Your task to perform on an android device: See recent photos Image 0: 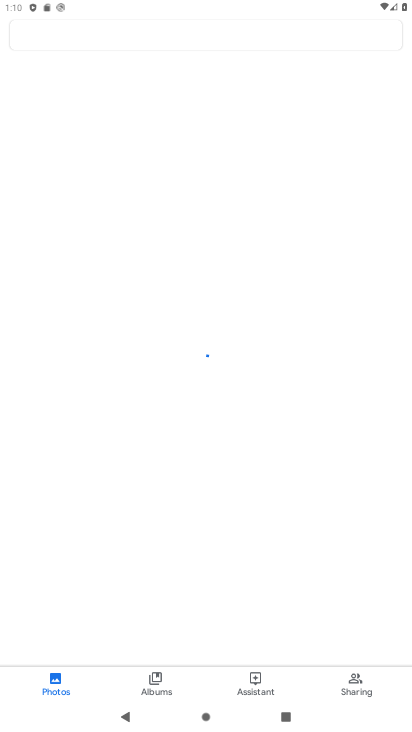
Step 0: drag from (198, 612) to (239, 357)
Your task to perform on an android device: See recent photos Image 1: 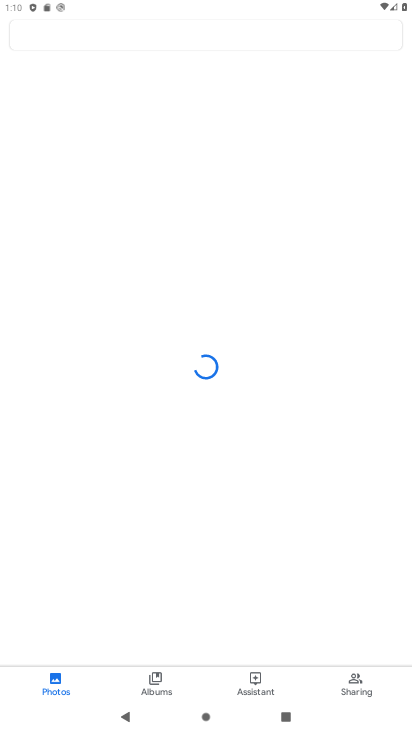
Step 1: click (262, 347)
Your task to perform on an android device: See recent photos Image 2: 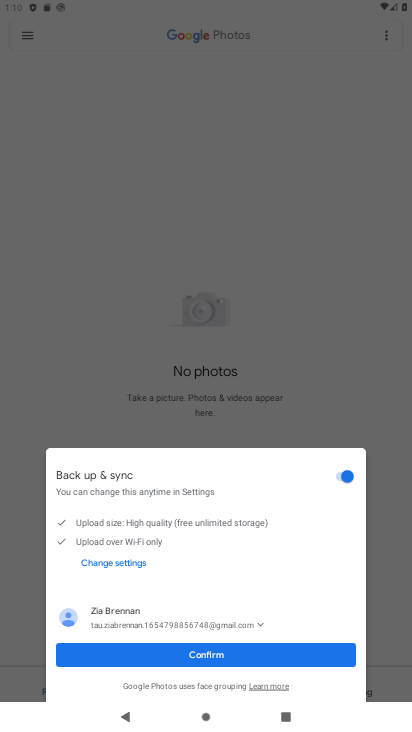
Step 2: drag from (189, 581) to (220, 360)
Your task to perform on an android device: See recent photos Image 3: 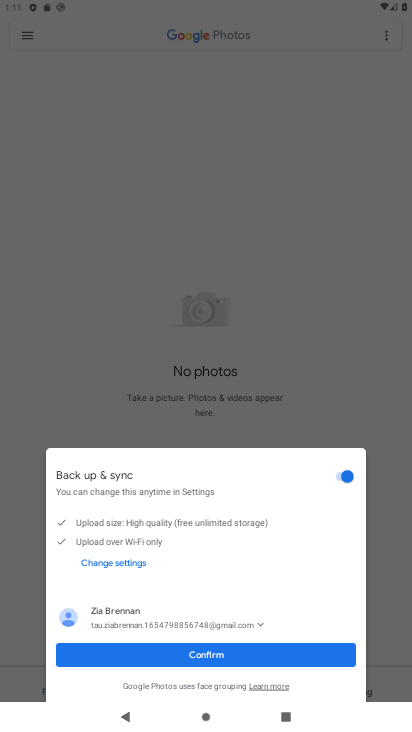
Step 3: press home button
Your task to perform on an android device: See recent photos Image 4: 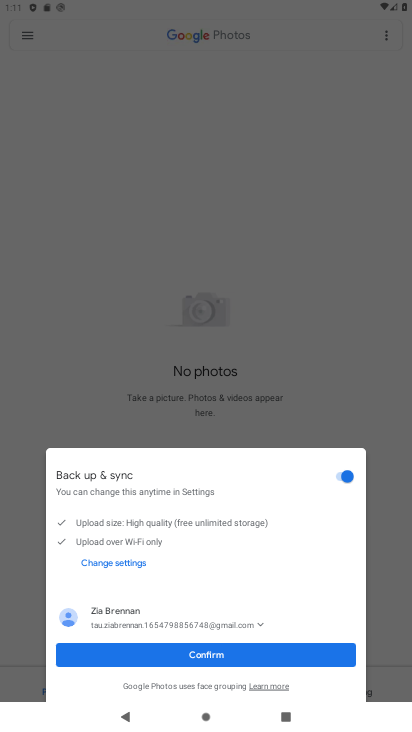
Step 4: press home button
Your task to perform on an android device: See recent photos Image 5: 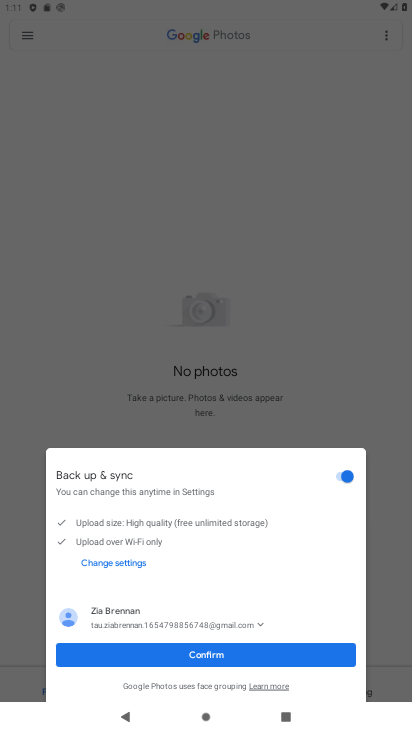
Step 5: click (281, 192)
Your task to perform on an android device: See recent photos Image 6: 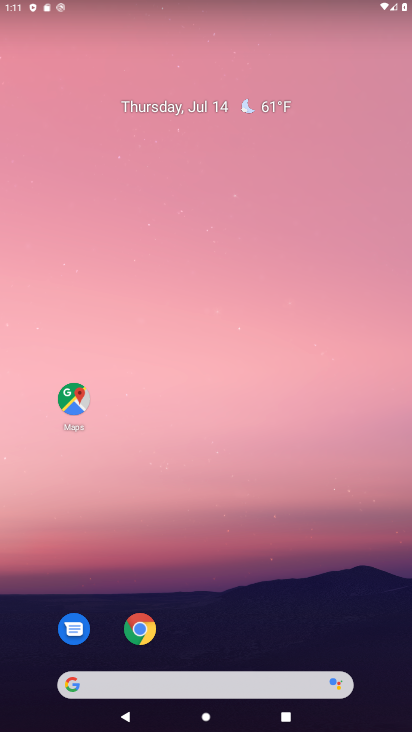
Step 6: drag from (193, 639) to (224, 119)
Your task to perform on an android device: See recent photos Image 7: 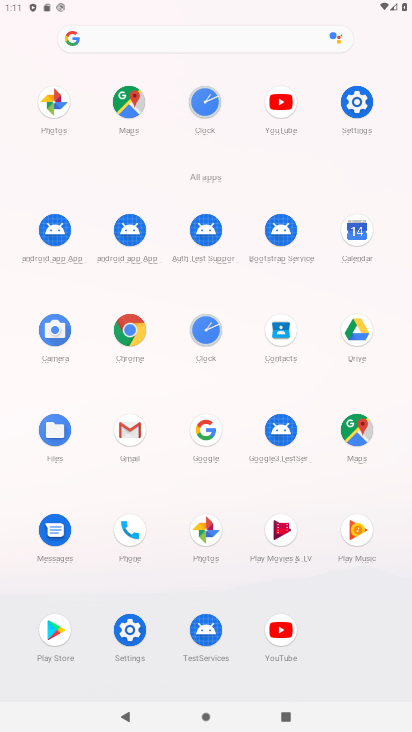
Step 7: drag from (228, 567) to (211, 431)
Your task to perform on an android device: See recent photos Image 8: 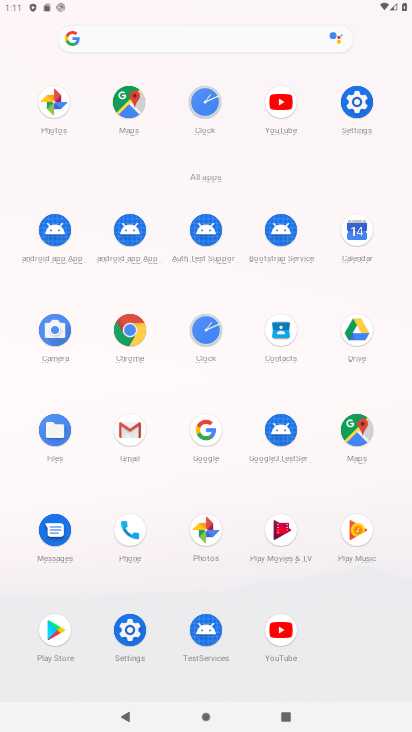
Step 8: click (207, 532)
Your task to perform on an android device: See recent photos Image 9: 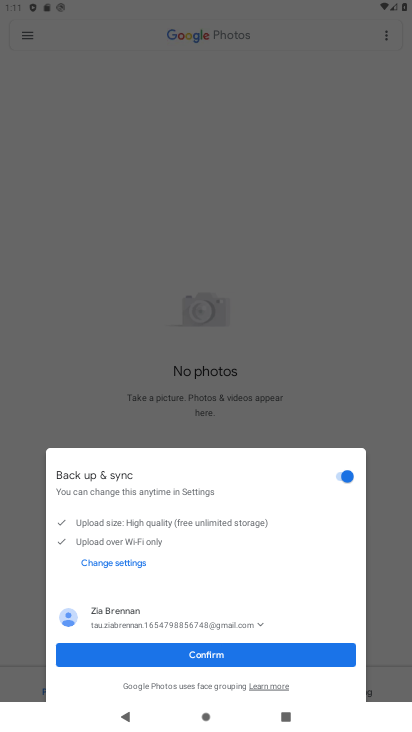
Step 9: click (252, 272)
Your task to perform on an android device: See recent photos Image 10: 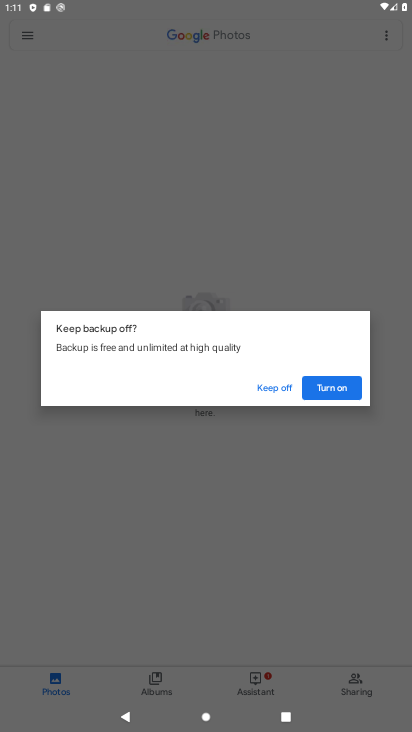
Step 10: press home button
Your task to perform on an android device: See recent photos Image 11: 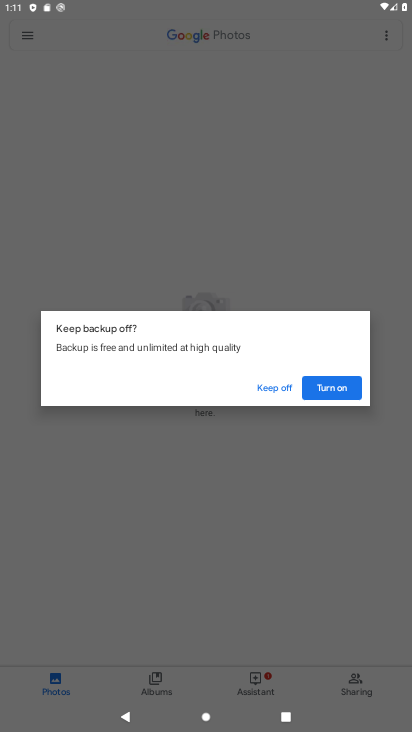
Step 11: press home button
Your task to perform on an android device: See recent photos Image 12: 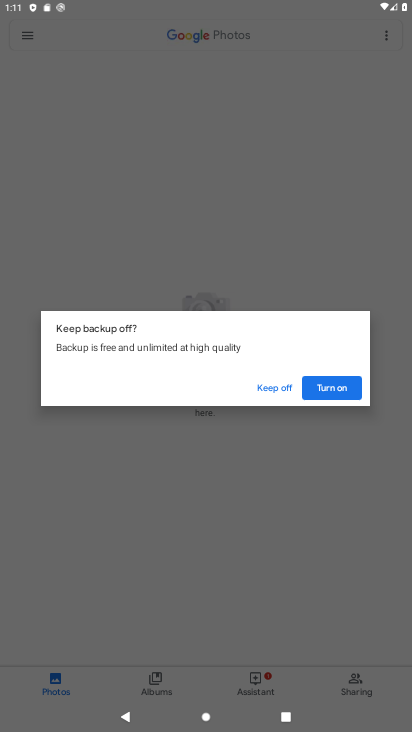
Step 12: click (248, 344)
Your task to perform on an android device: See recent photos Image 13: 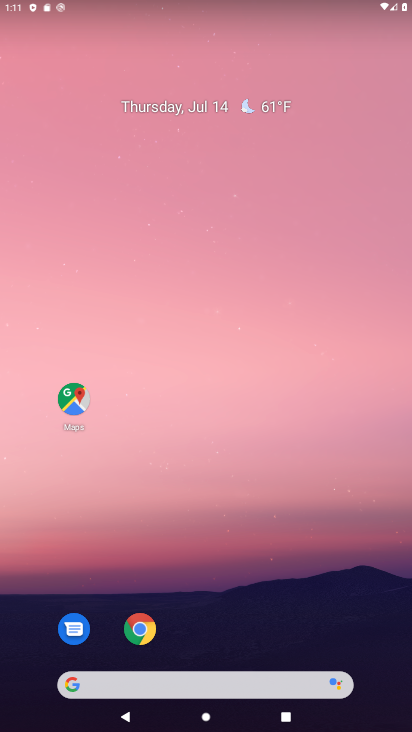
Step 13: drag from (211, 591) to (237, 178)
Your task to perform on an android device: See recent photos Image 14: 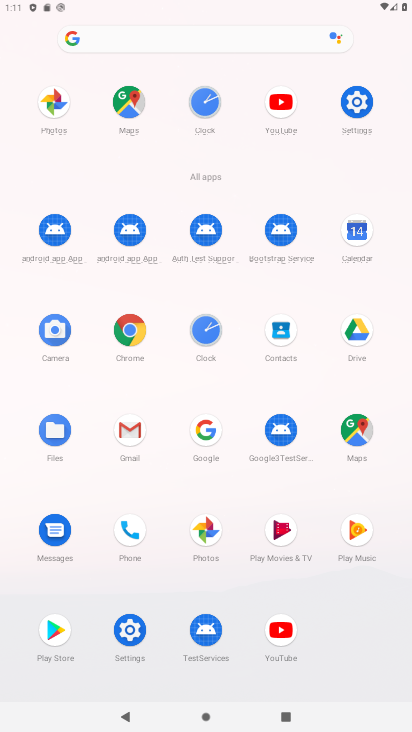
Step 14: drag from (171, 562) to (197, 341)
Your task to perform on an android device: See recent photos Image 15: 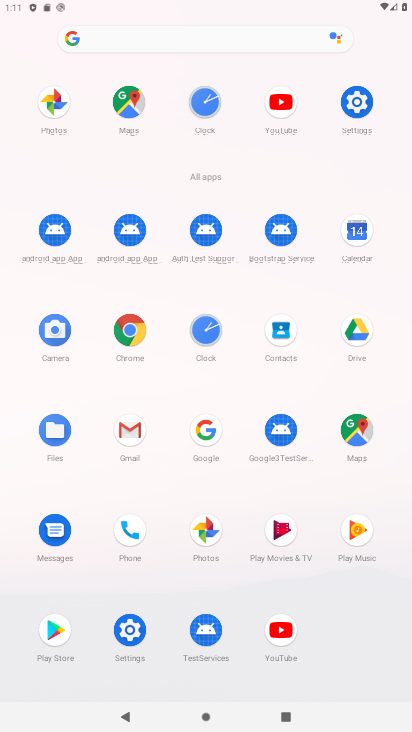
Step 15: drag from (168, 595) to (215, 318)
Your task to perform on an android device: See recent photos Image 16: 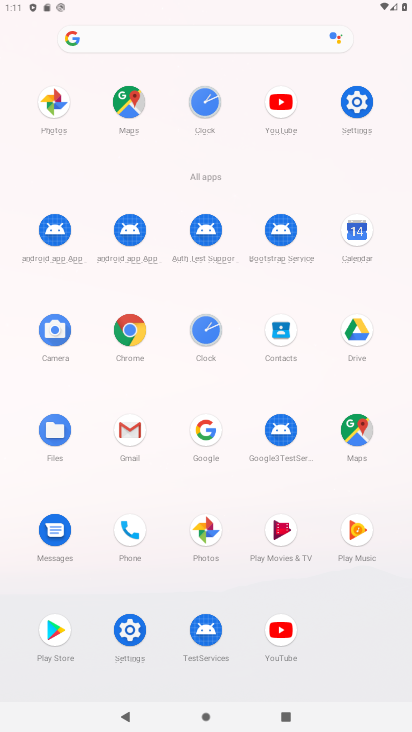
Step 16: drag from (238, 591) to (238, 244)
Your task to perform on an android device: See recent photos Image 17: 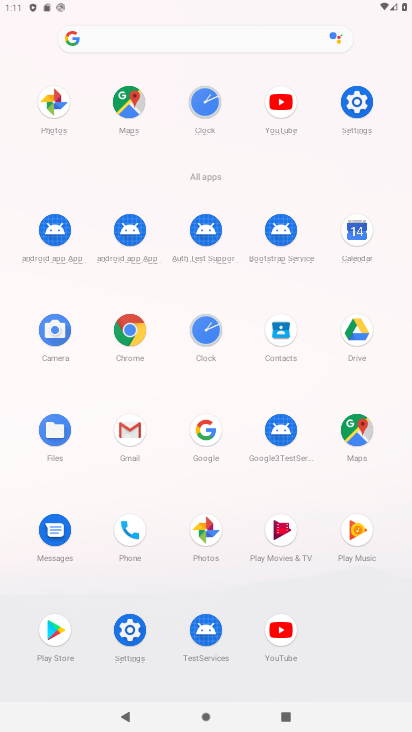
Step 17: drag from (236, 552) to (242, 345)
Your task to perform on an android device: See recent photos Image 18: 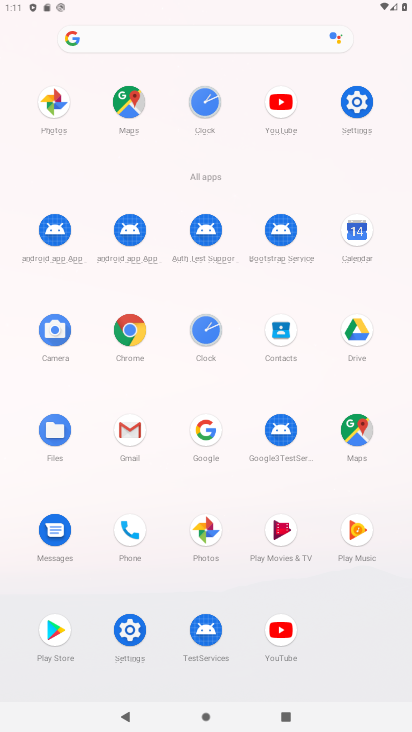
Step 18: drag from (247, 586) to (247, 246)
Your task to perform on an android device: See recent photos Image 19: 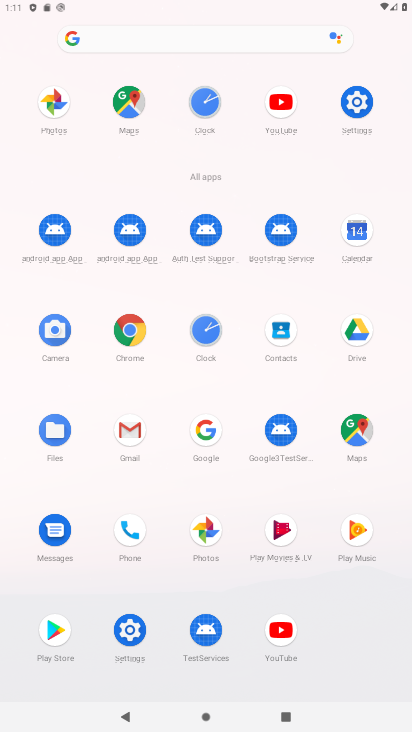
Step 19: drag from (240, 600) to (234, 148)
Your task to perform on an android device: See recent photos Image 20: 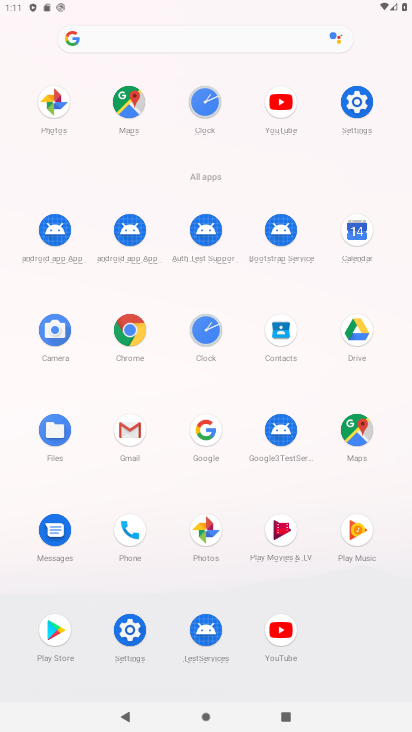
Step 20: drag from (163, 628) to (146, 252)
Your task to perform on an android device: See recent photos Image 21: 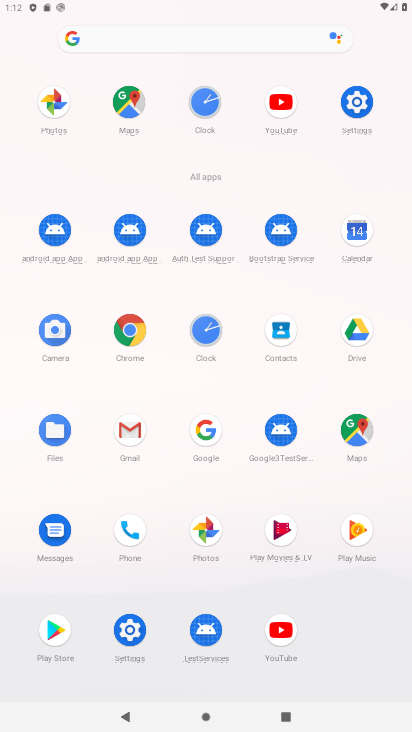
Step 21: click (199, 530)
Your task to perform on an android device: See recent photos Image 22: 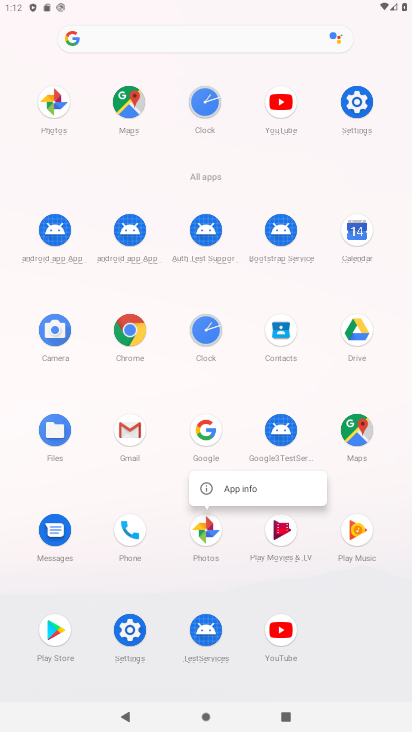
Step 22: click (234, 482)
Your task to perform on an android device: See recent photos Image 23: 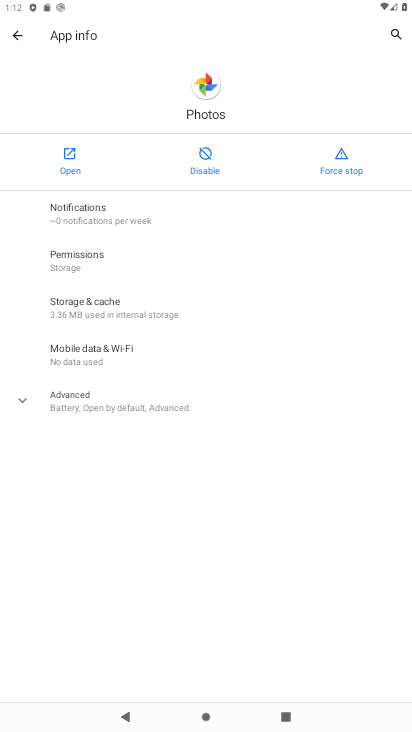
Step 23: click (69, 151)
Your task to perform on an android device: See recent photos Image 24: 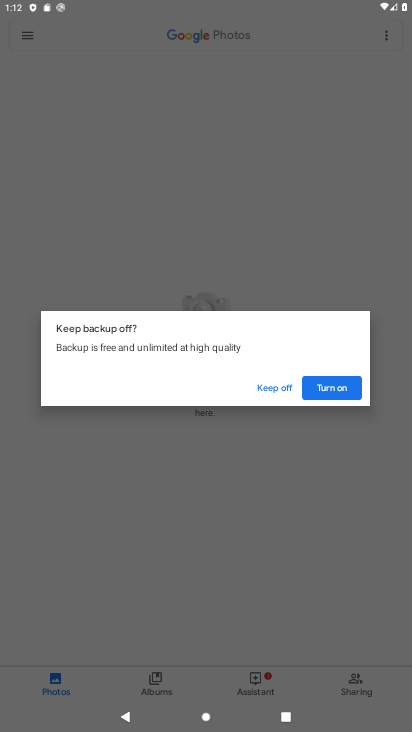
Step 24: click (331, 385)
Your task to perform on an android device: See recent photos Image 25: 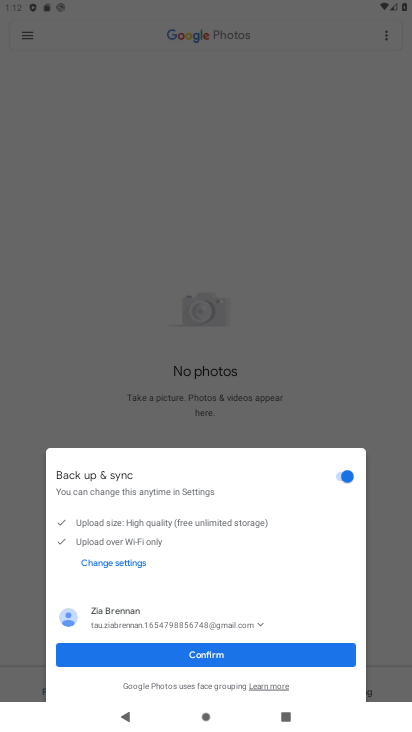
Step 25: click (176, 648)
Your task to perform on an android device: See recent photos Image 26: 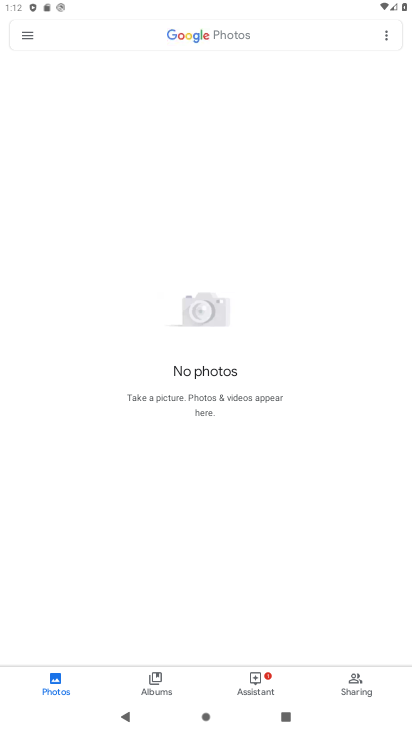
Step 26: drag from (202, 591) to (203, 425)
Your task to perform on an android device: See recent photos Image 27: 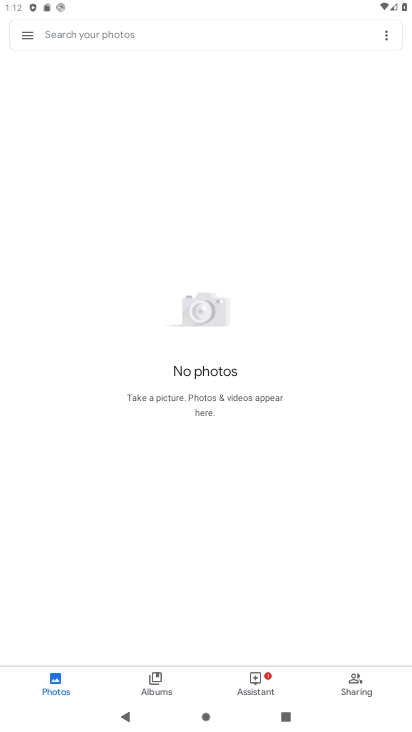
Step 27: drag from (182, 561) to (230, 265)
Your task to perform on an android device: See recent photos Image 28: 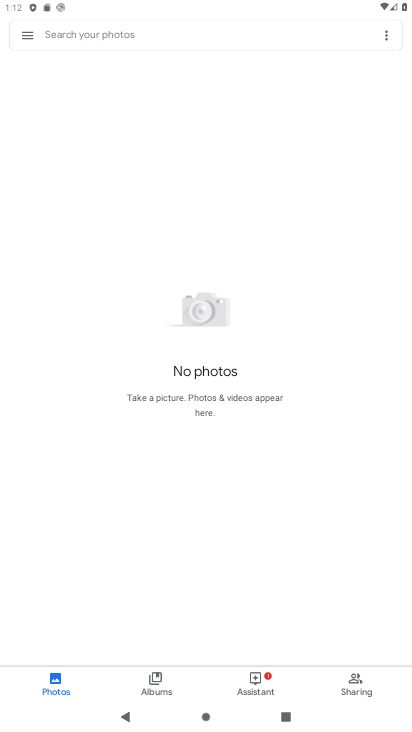
Step 28: drag from (331, 389) to (157, 575)
Your task to perform on an android device: See recent photos Image 29: 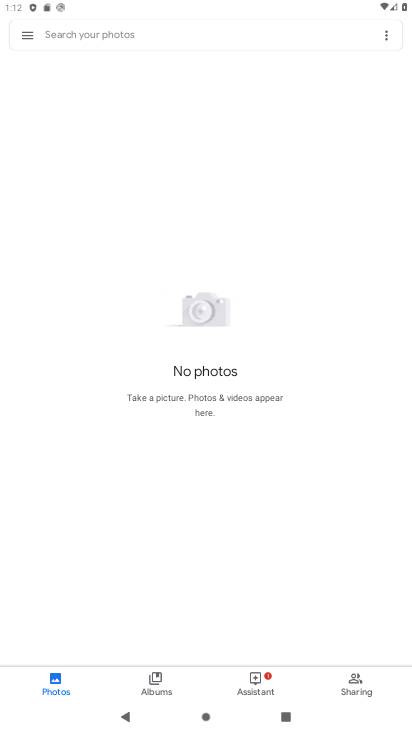
Step 29: drag from (90, 389) to (369, 568)
Your task to perform on an android device: See recent photos Image 30: 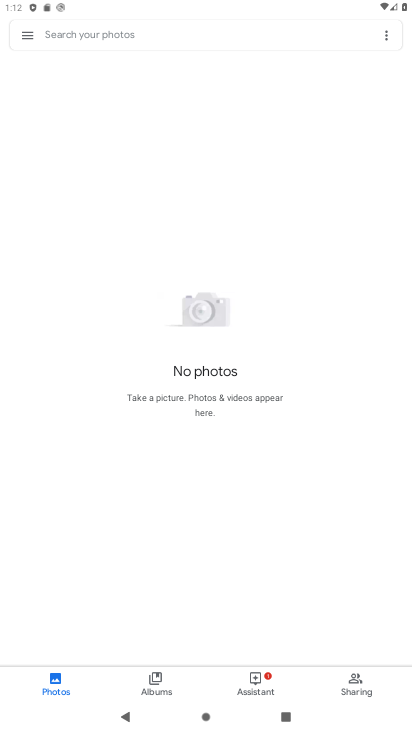
Step 30: drag from (325, 401) to (90, 339)
Your task to perform on an android device: See recent photos Image 31: 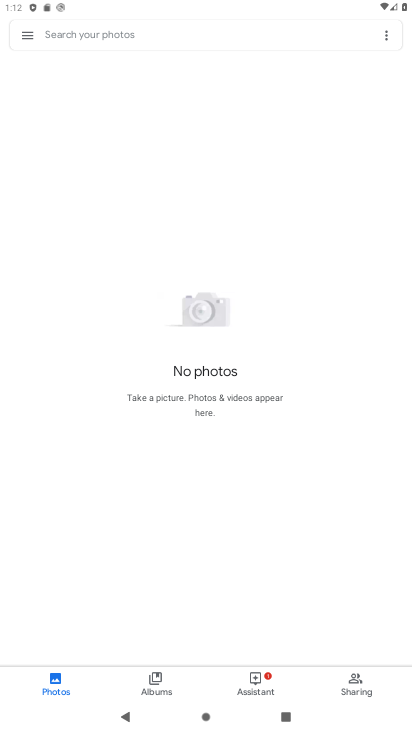
Step 31: drag from (122, 375) to (281, 526)
Your task to perform on an android device: See recent photos Image 32: 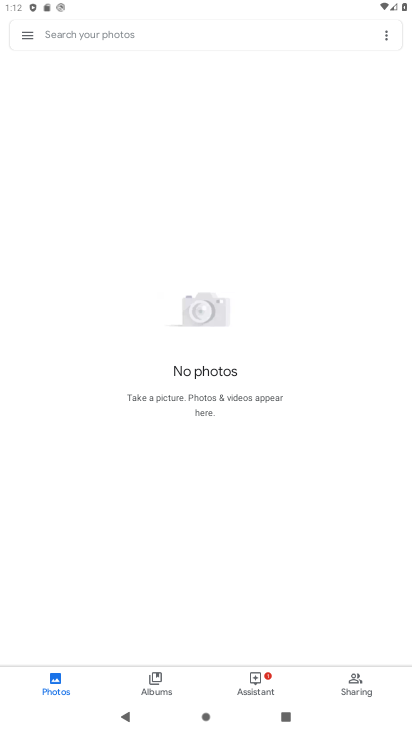
Step 32: drag from (300, 495) to (309, 399)
Your task to perform on an android device: See recent photos Image 33: 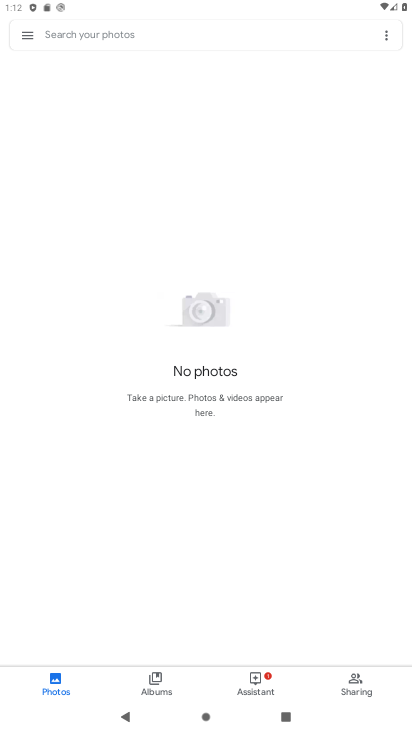
Step 33: click (203, 278)
Your task to perform on an android device: See recent photos Image 34: 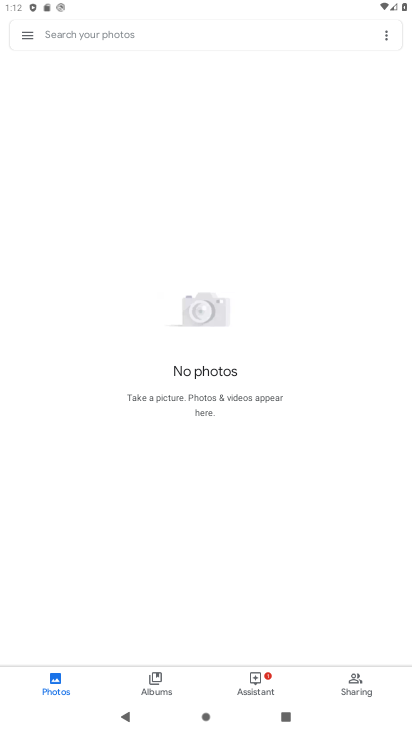
Step 34: click (290, 576)
Your task to perform on an android device: See recent photos Image 35: 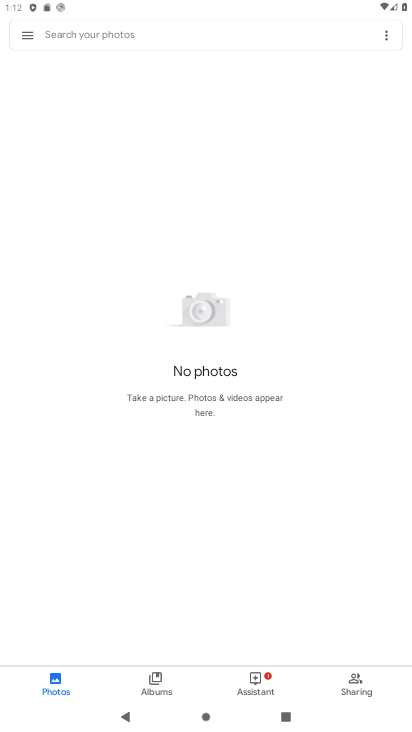
Step 35: drag from (241, 533) to (268, 448)
Your task to perform on an android device: See recent photos Image 36: 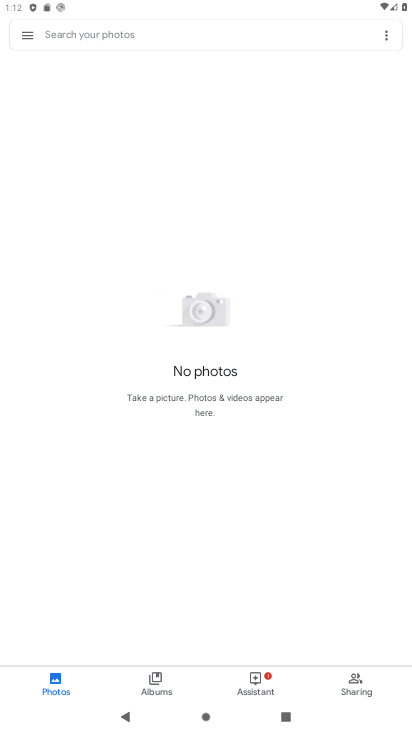
Step 36: drag from (194, 522) to (208, 455)
Your task to perform on an android device: See recent photos Image 37: 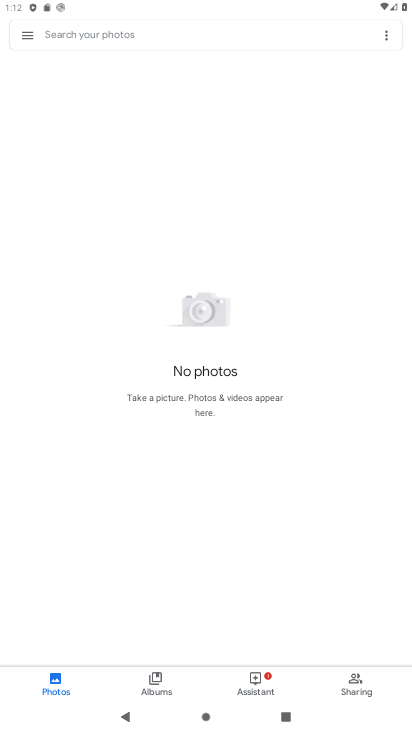
Step 37: click (240, 271)
Your task to perform on an android device: See recent photos Image 38: 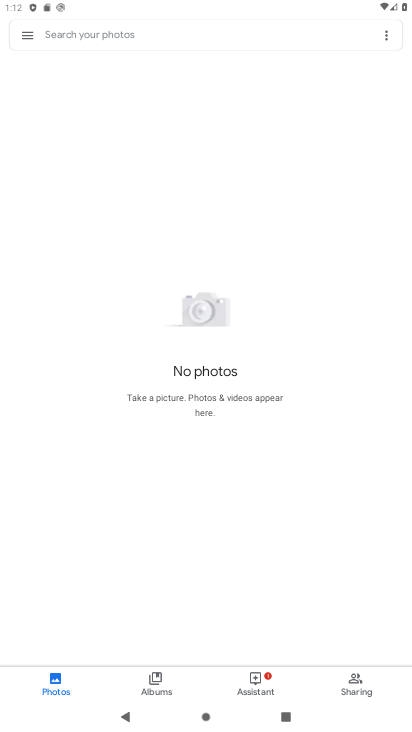
Step 38: click (29, 23)
Your task to perform on an android device: See recent photos Image 39: 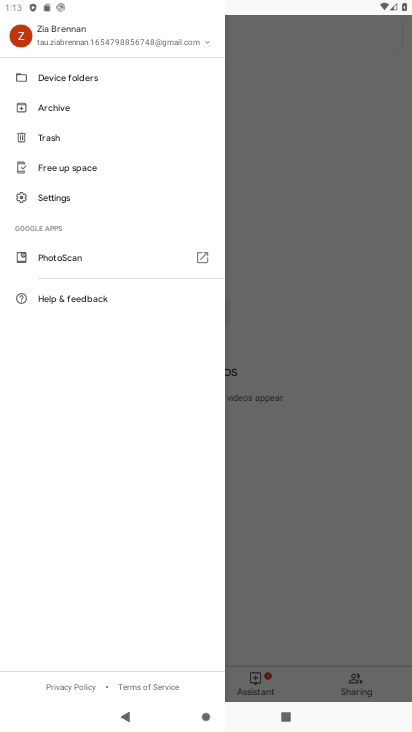
Step 39: drag from (89, 252) to (127, 6)
Your task to perform on an android device: See recent photos Image 40: 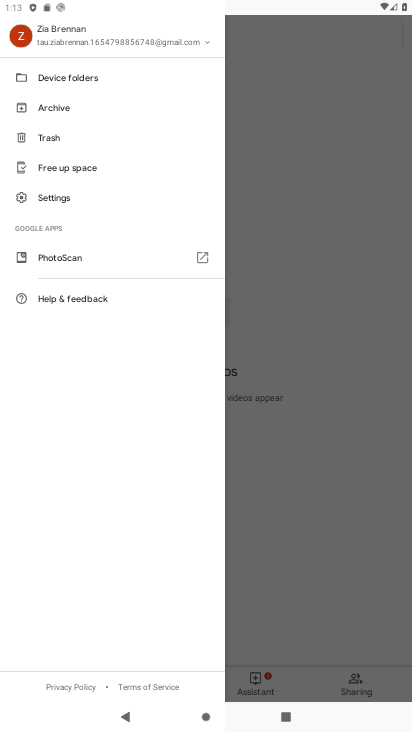
Step 40: click (77, 80)
Your task to perform on an android device: See recent photos Image 41: 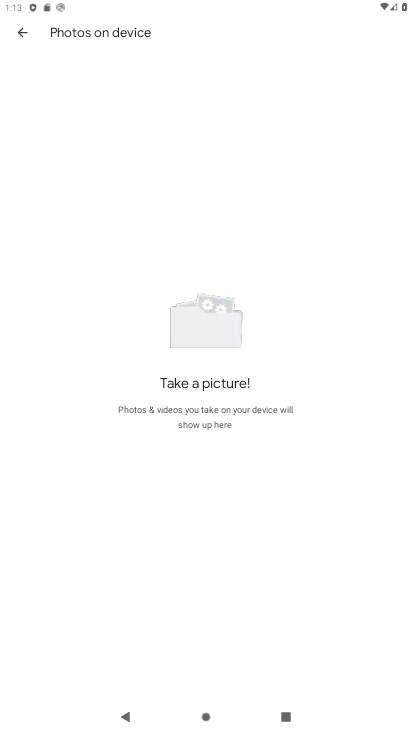
Step 41: drag from (154, 512) to (215, 274)
Your task to perform on an android device: See recent photos Image 42: 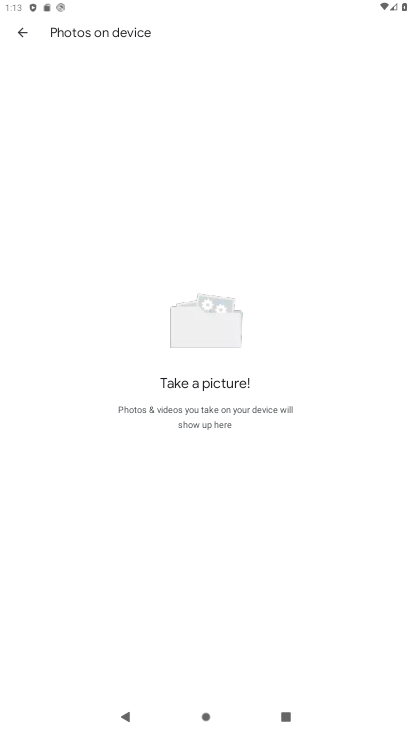
Step 42: drag from (192, 67) to (278, 362)
Your task to perform on an android device: See recent photos Image 43: 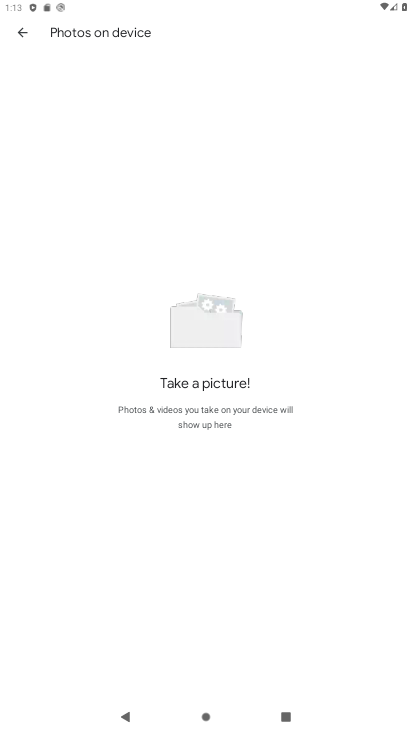
Step 43: drag from (200, 619) to (201, 533)
Your task to perform on an android device: See recent photos Image 44: 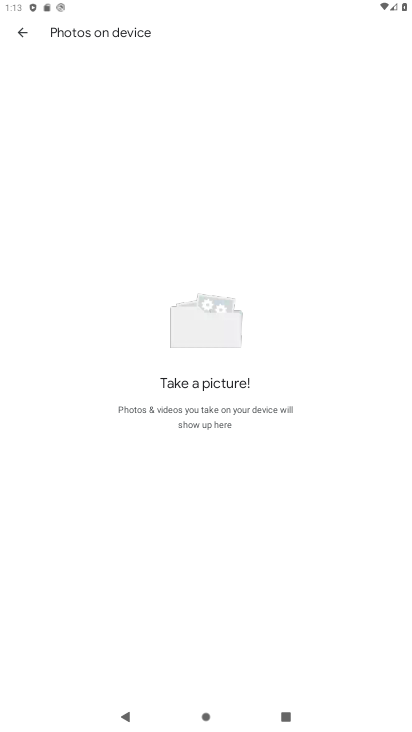
Step 44: drag from (151, 197) to (252, 509)
Your task to perform on an android device: See recent photos Image 45: 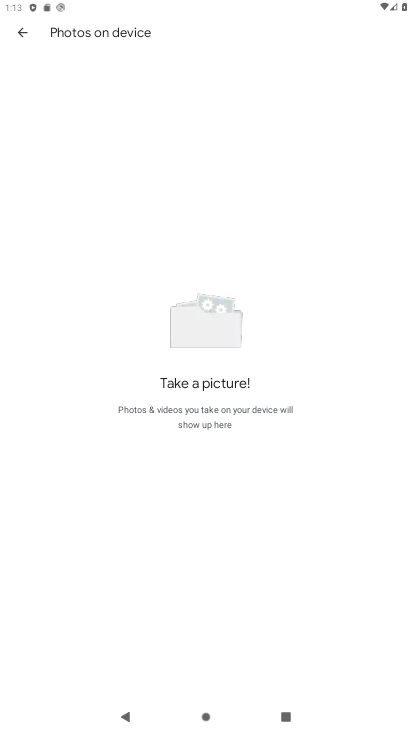
Step 45: drag from (158, 216) to (221, 499)
Your task to perform on an android device: See recent photos Image 46: 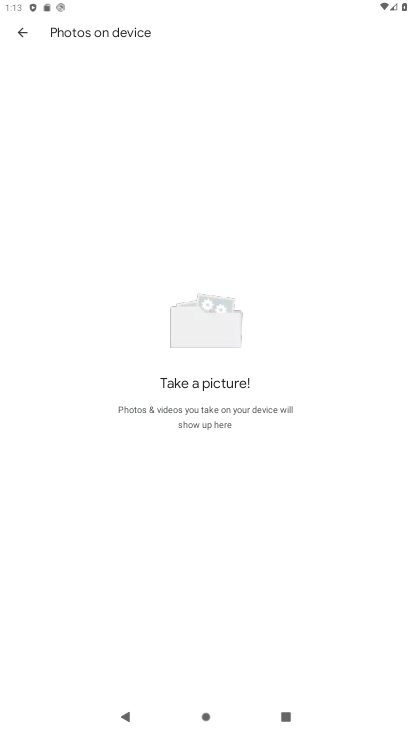
Step 46: drag from (74, 67) to (112, 372)
Your task to perform on an android device: See recent photos Image 47: 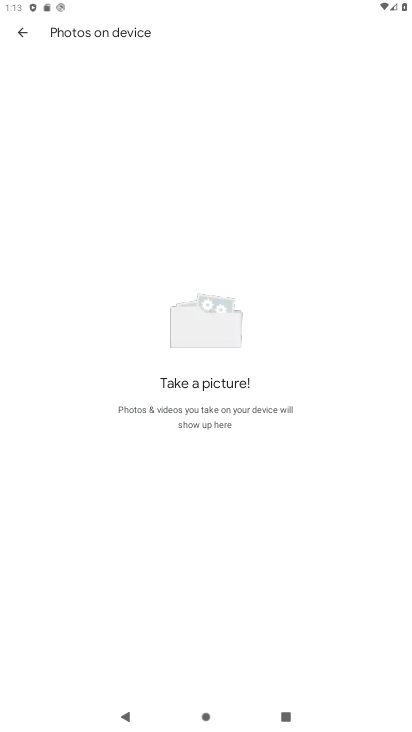
Step 47: drag from (120, 114) to (344, 698)
Your task to perform on an android device: See recent photos Image 48: 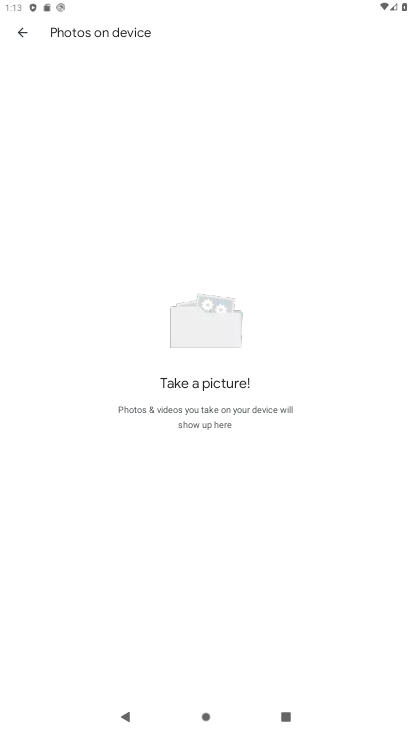
Step 48: drag from (105, 111) to (150, 595)
Your task to perform on an android device: See recent photos Image 49: 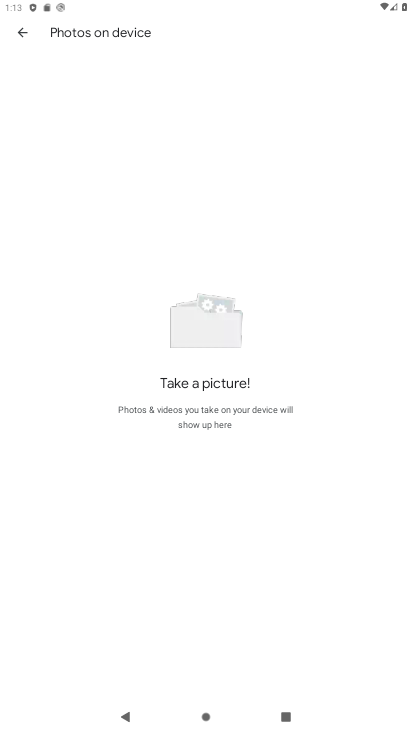
Step 49: click (346, 190)
Your task to perform on an android device: See recent photos Image 50: 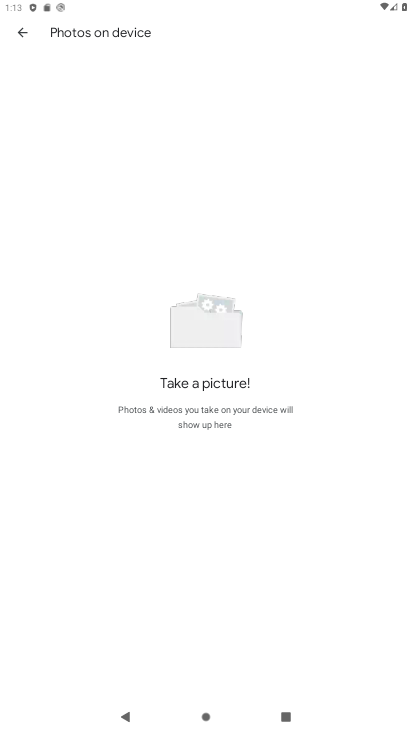
Step 50: drag from (135, 283) to (237, 643)
Your task to perform on an android device: See recent photos Image 51: 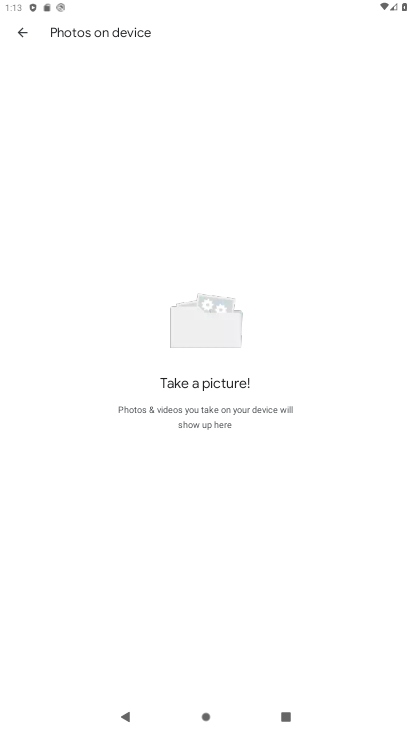
Step 51: click (25, 27)
Your task to perform on an android device: See recent photos Image 52: 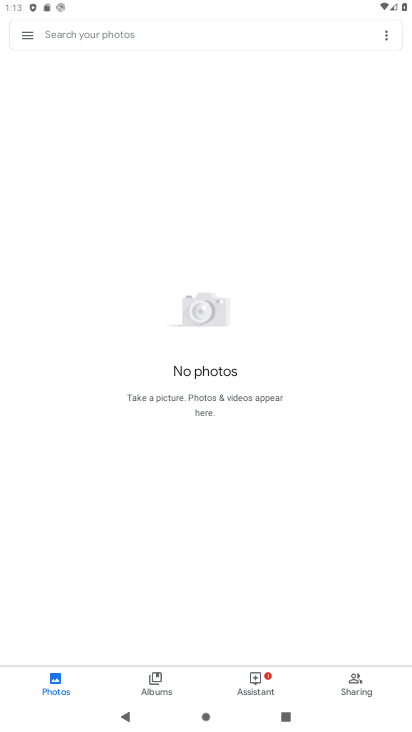
Step 52: task complete